Your task to perform on an android device: move an email to a new category in the gmail app Image 0: 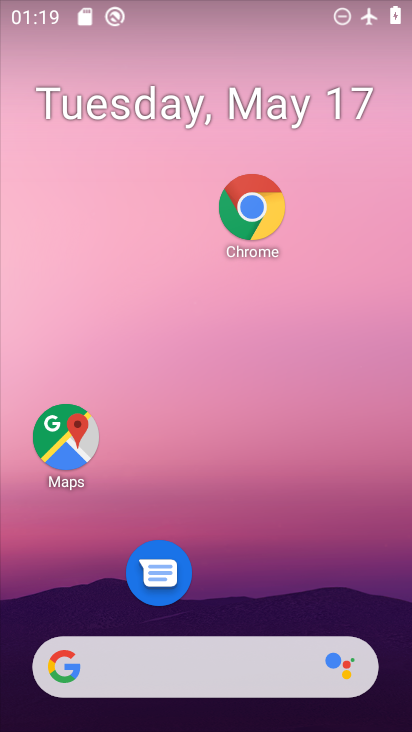
Step 0: drag from (172, 665) to (294, 99)
Your task to perform on an android device: move an email to a new category in the gmail app Image 1: 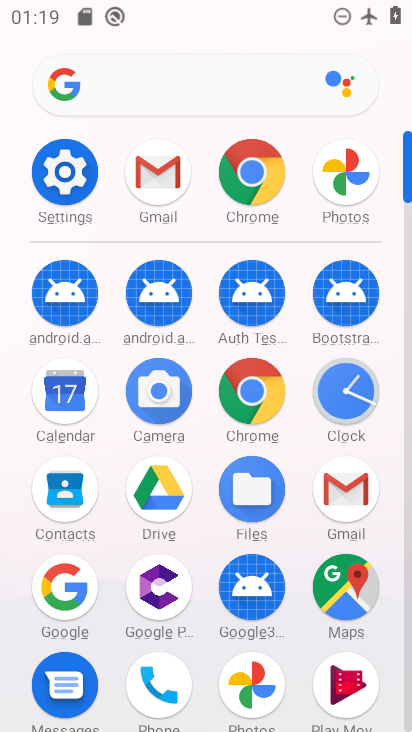
Step 1: click (326, 495)
Your task to perform on an android device: move an email to a new category in the gmail app Image 2: 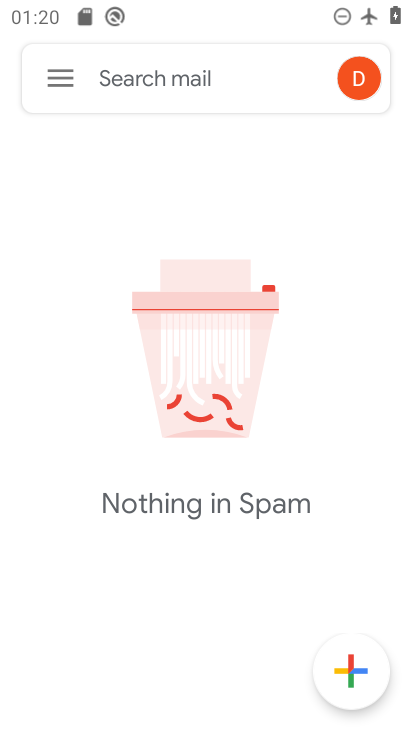
Step 2: click (59, 73)
Your task to perform on an android device: move an email to a new category in the gmail app Image 3: 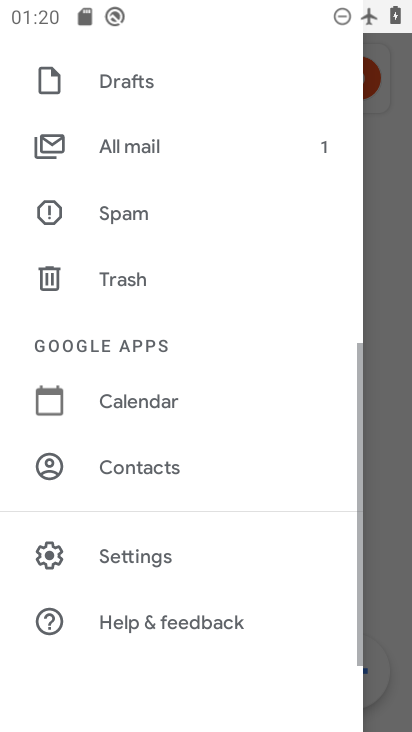
Step 3: task complete